Your task to perform on an android device: clear all cookies in the chrome app Image 0: 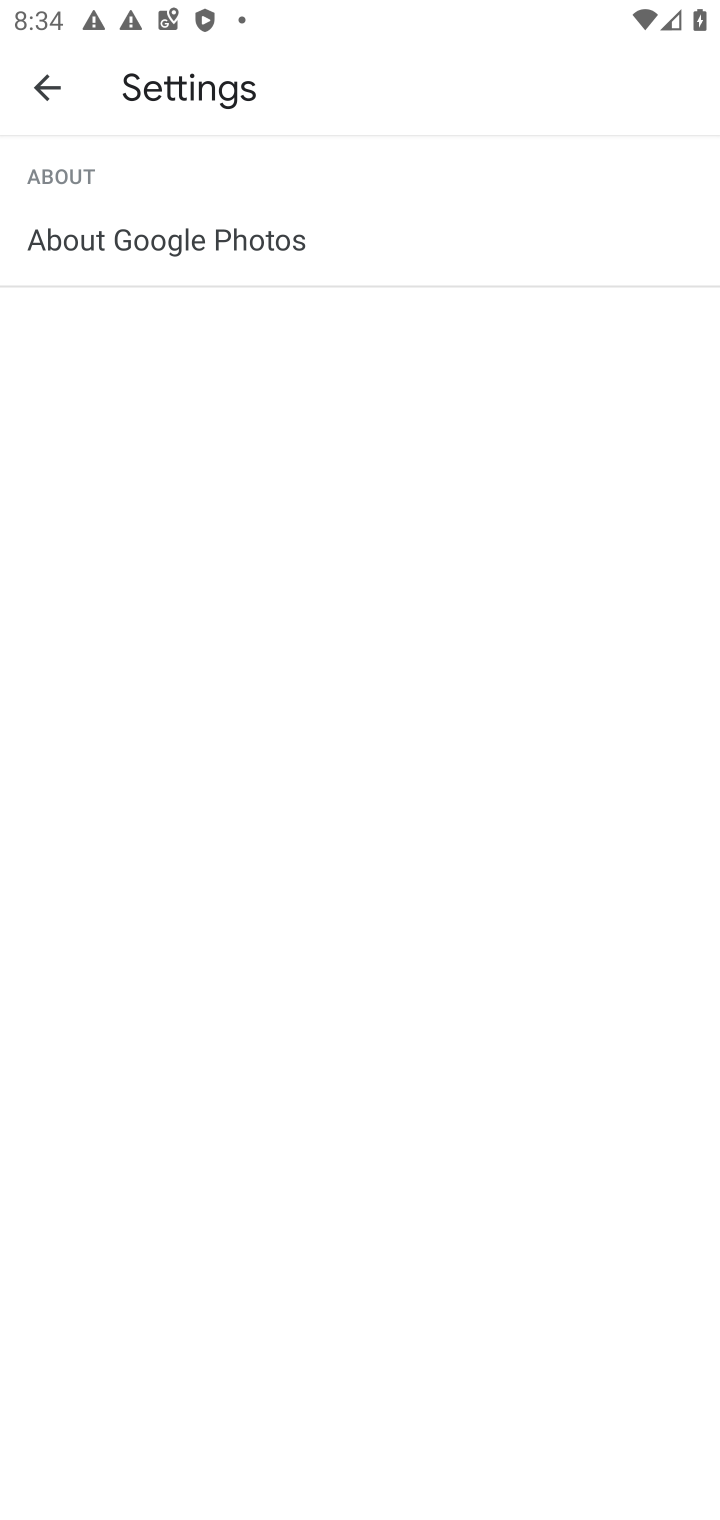
Step 0: press home button
Your task to perform on an android device: clear all cookies in the chrome app Image 1: 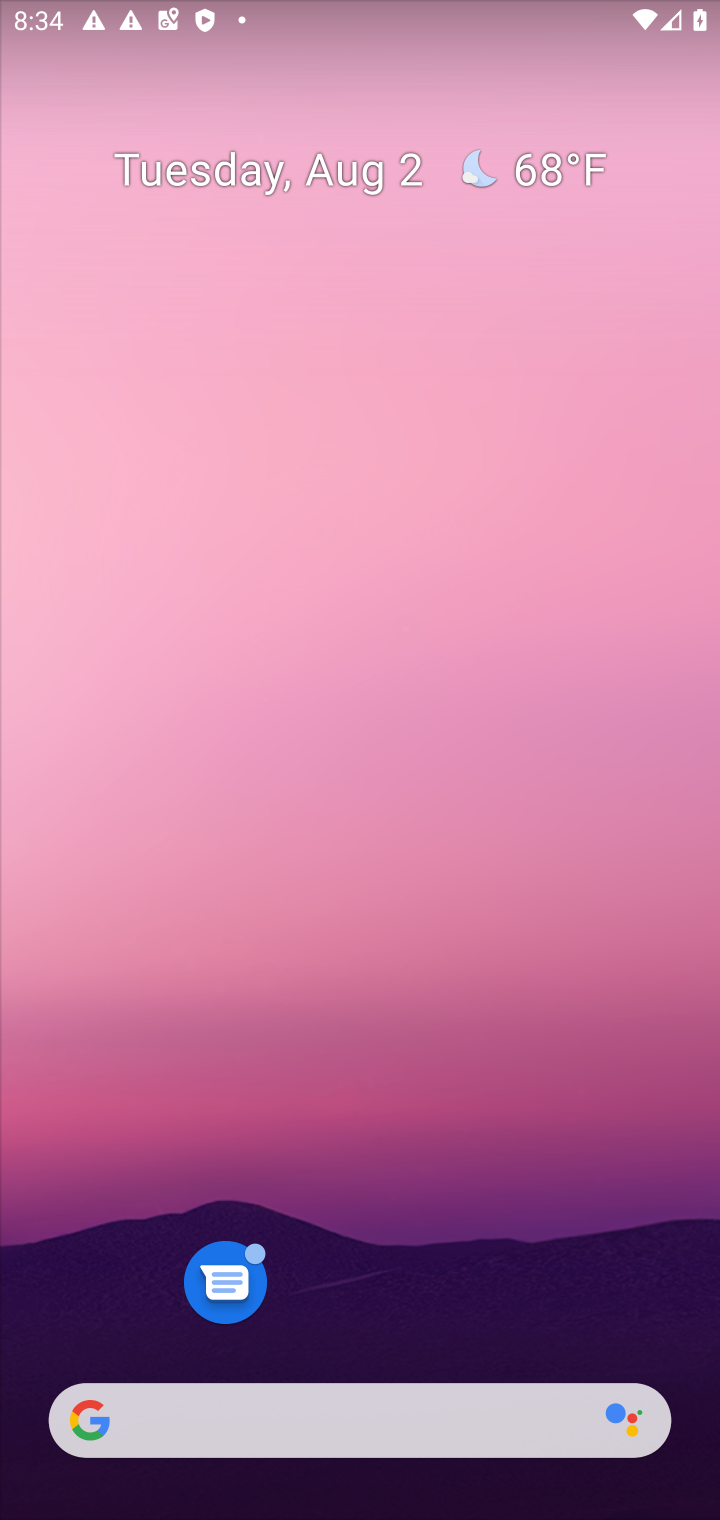
Step 1: drag from (414, 1309) to (537, 14)
Your task to perform on an android device: clear all cookies in the chrome app Image 2: 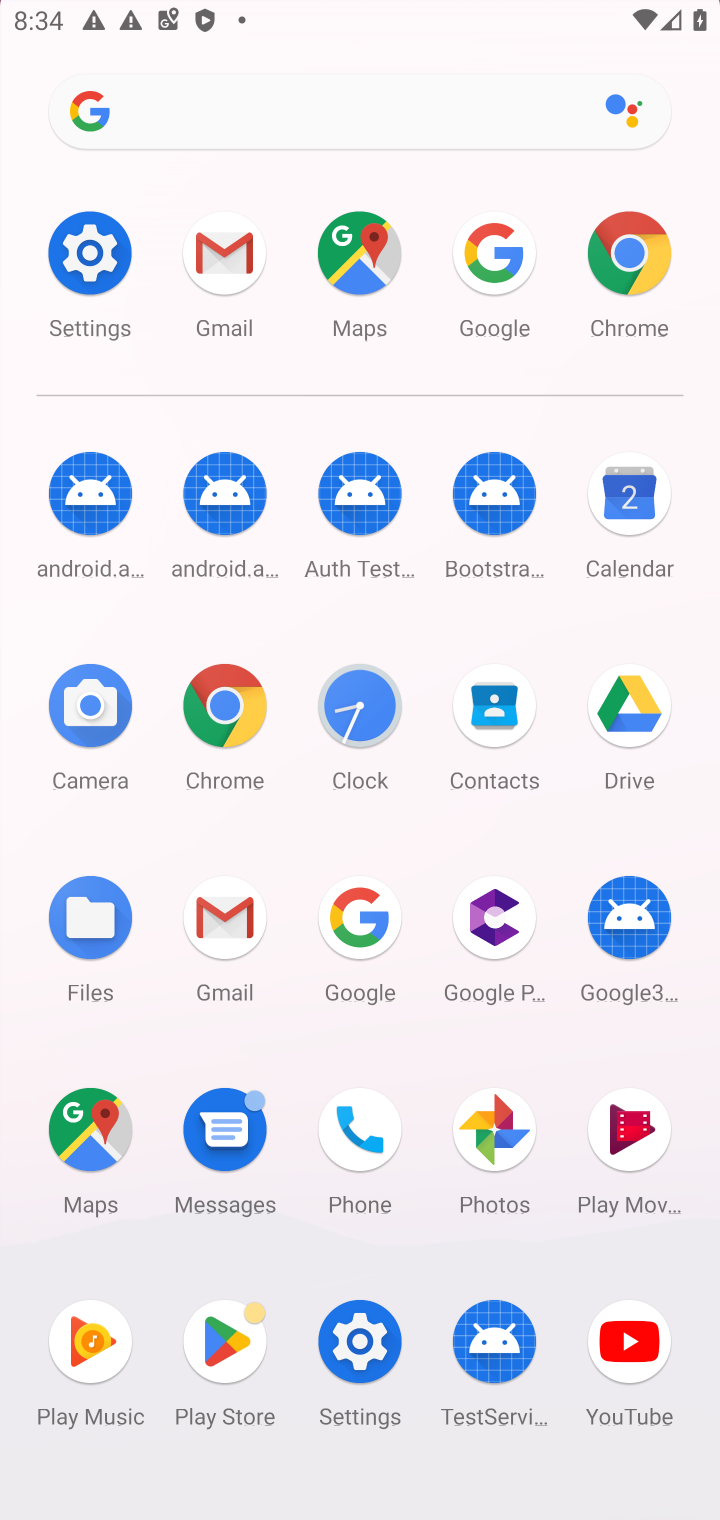
Step 2: click (645, 277)
Your task to perform on an android device: clear all cookies in the chrome app Image 3: 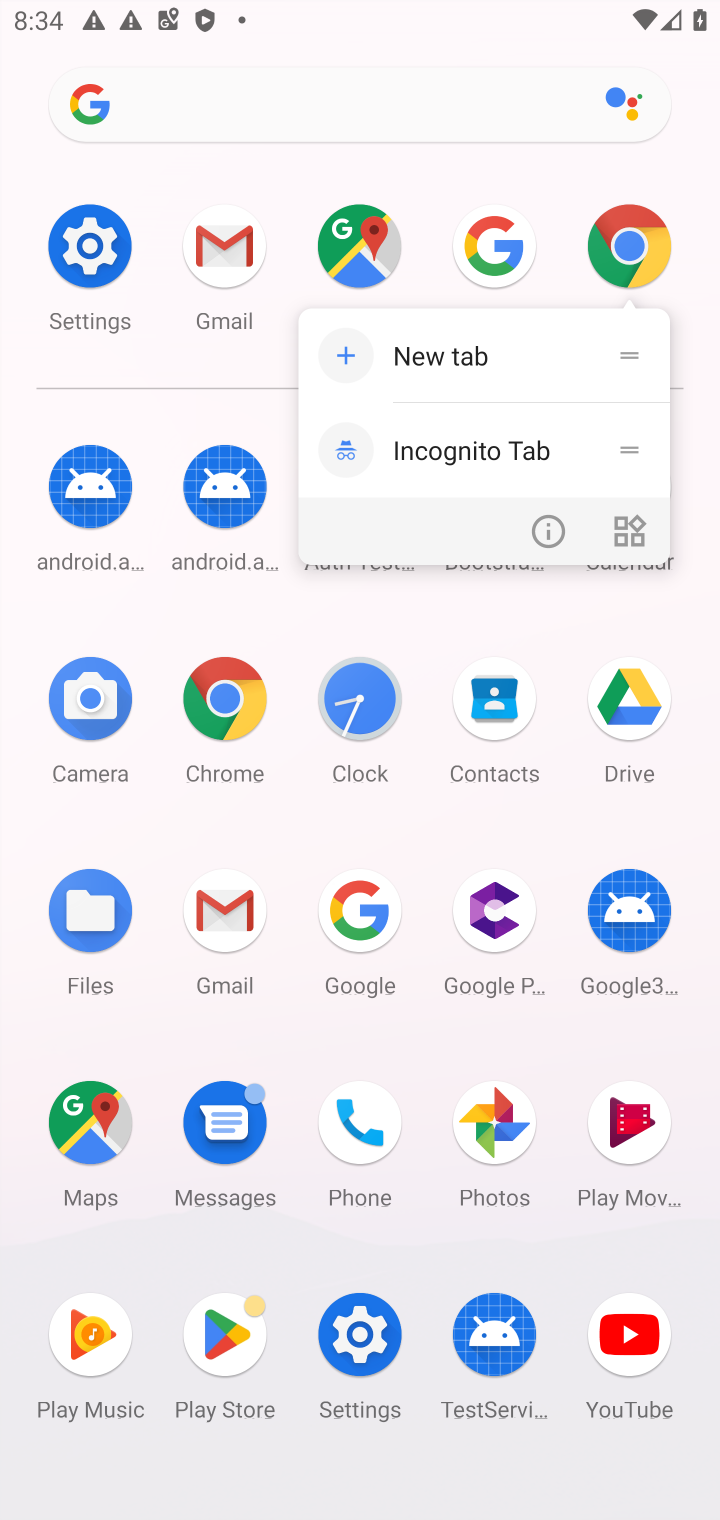
Step 3: click (645, 277)
Your task to perform on an android device: clear all cookies in the chrome app Image 4: 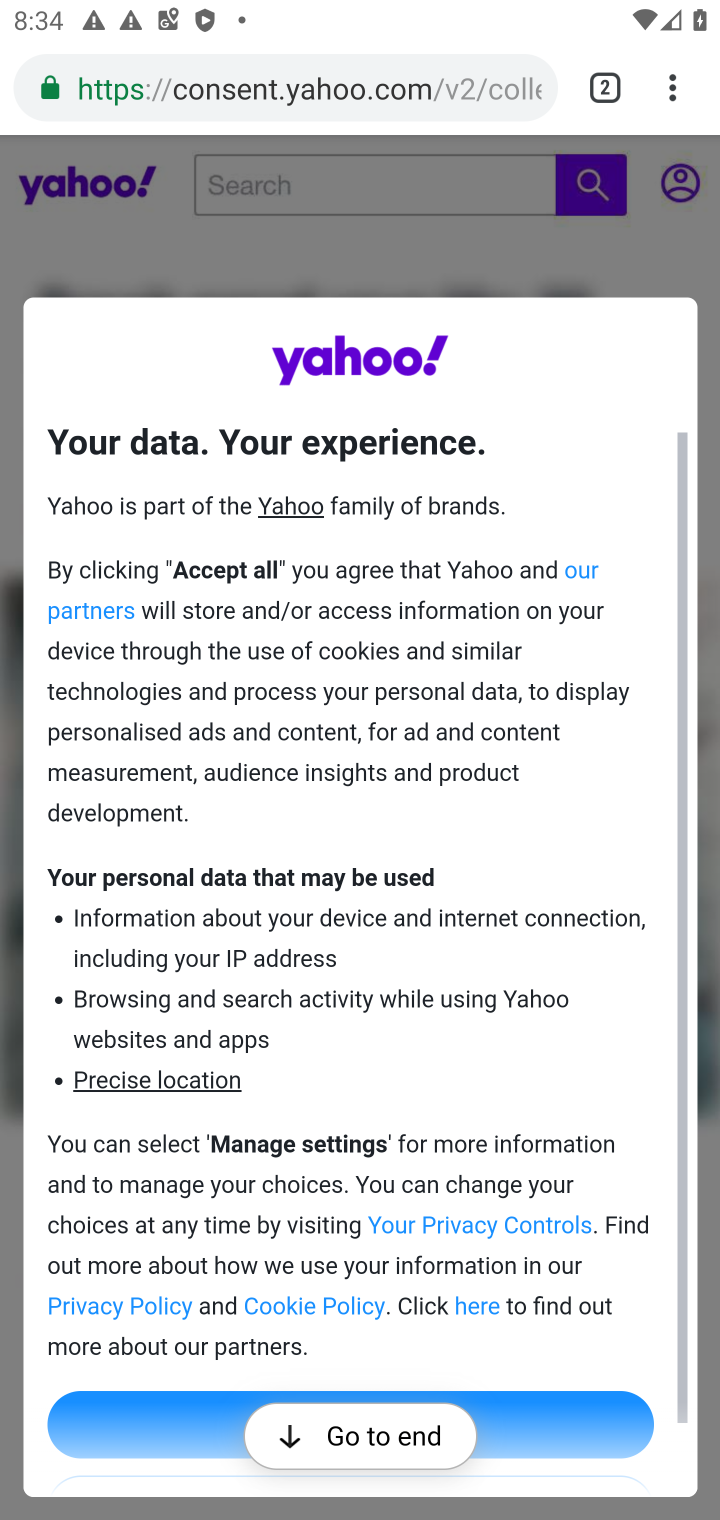
Step 4: click (390, 1440)
Your task to perform on an android device: clear all cookies in the chrome app Image 5: 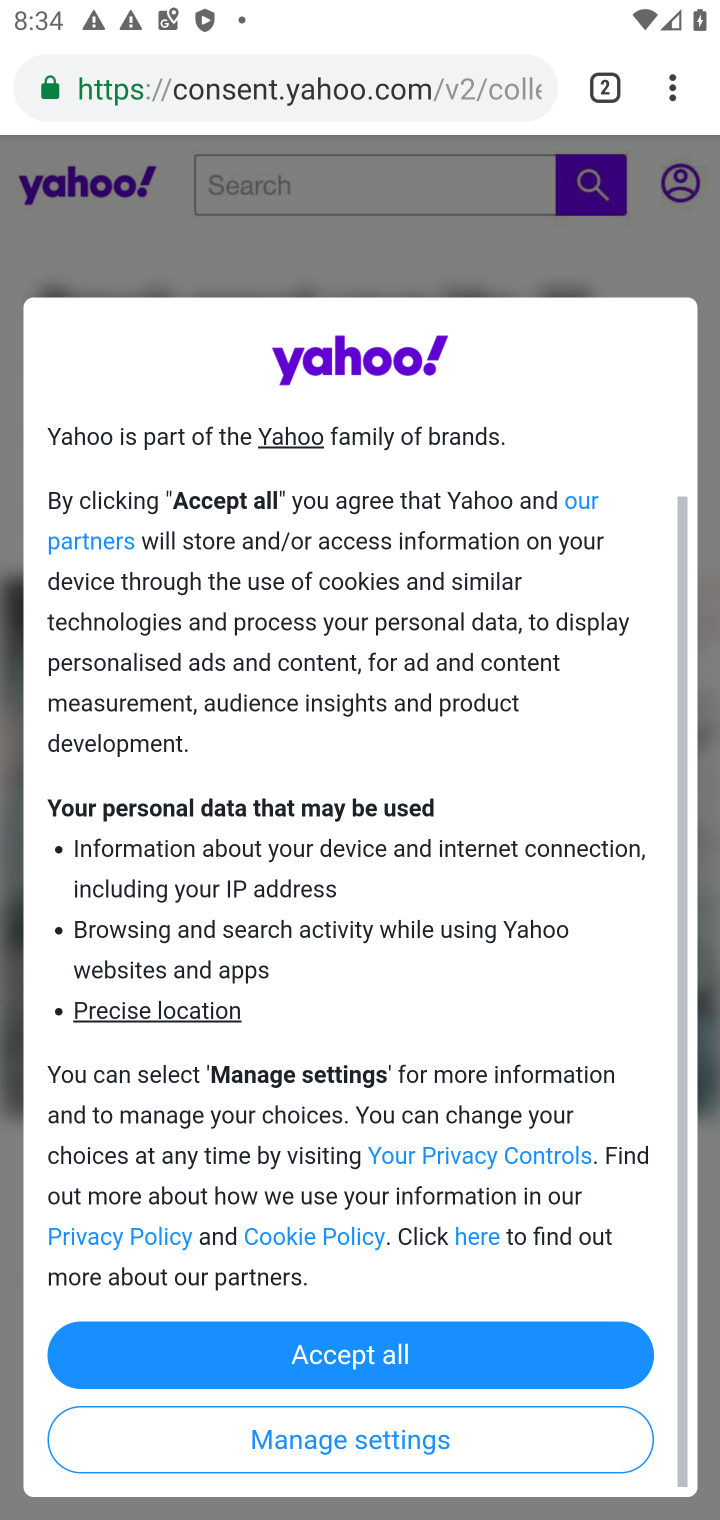
Step 5: click (364, 1363)
Your task to perform on an android device: clear all cookies in the chrome app Image 6: 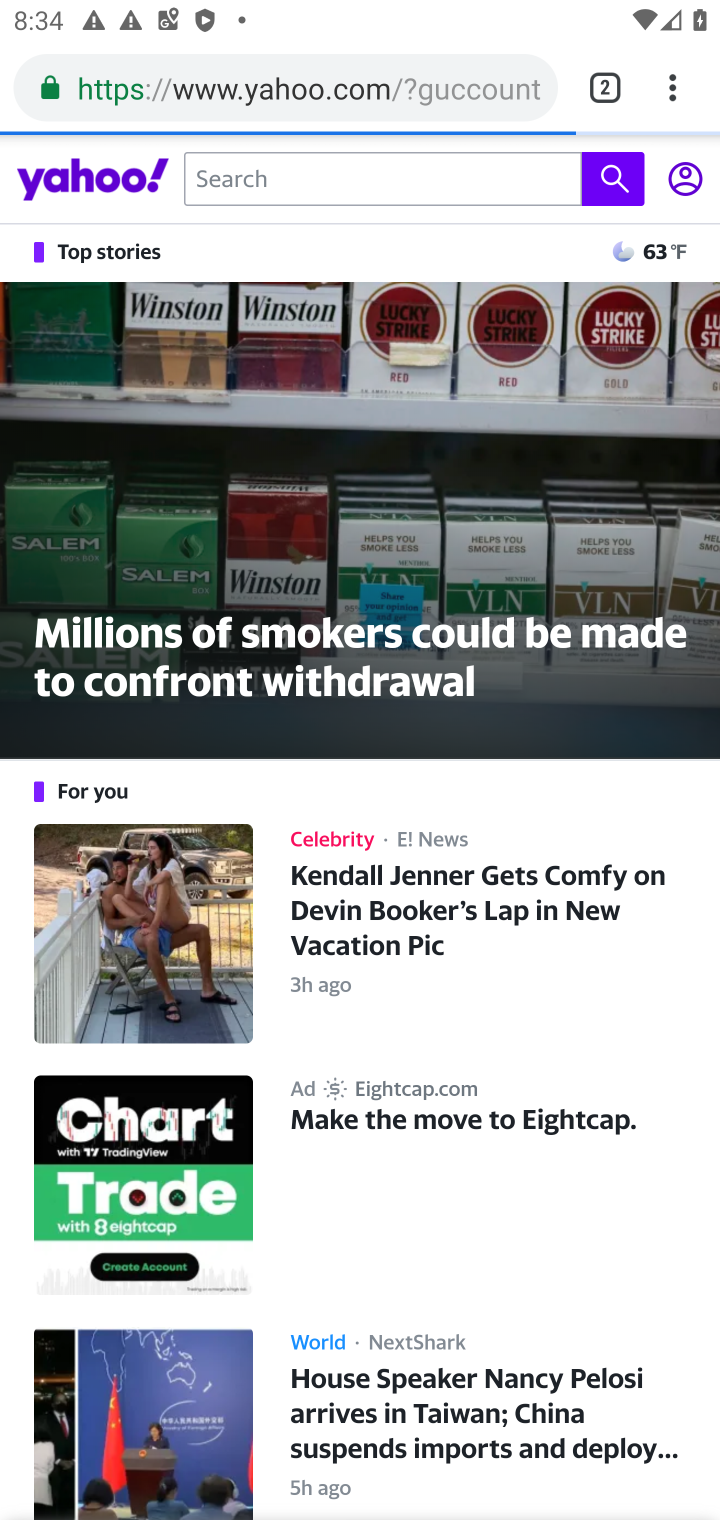
Step 6: drag from (674, 82) to (365, 1063)
Your task to perform on an android device: clear all cookies in the chrome app Image 7: 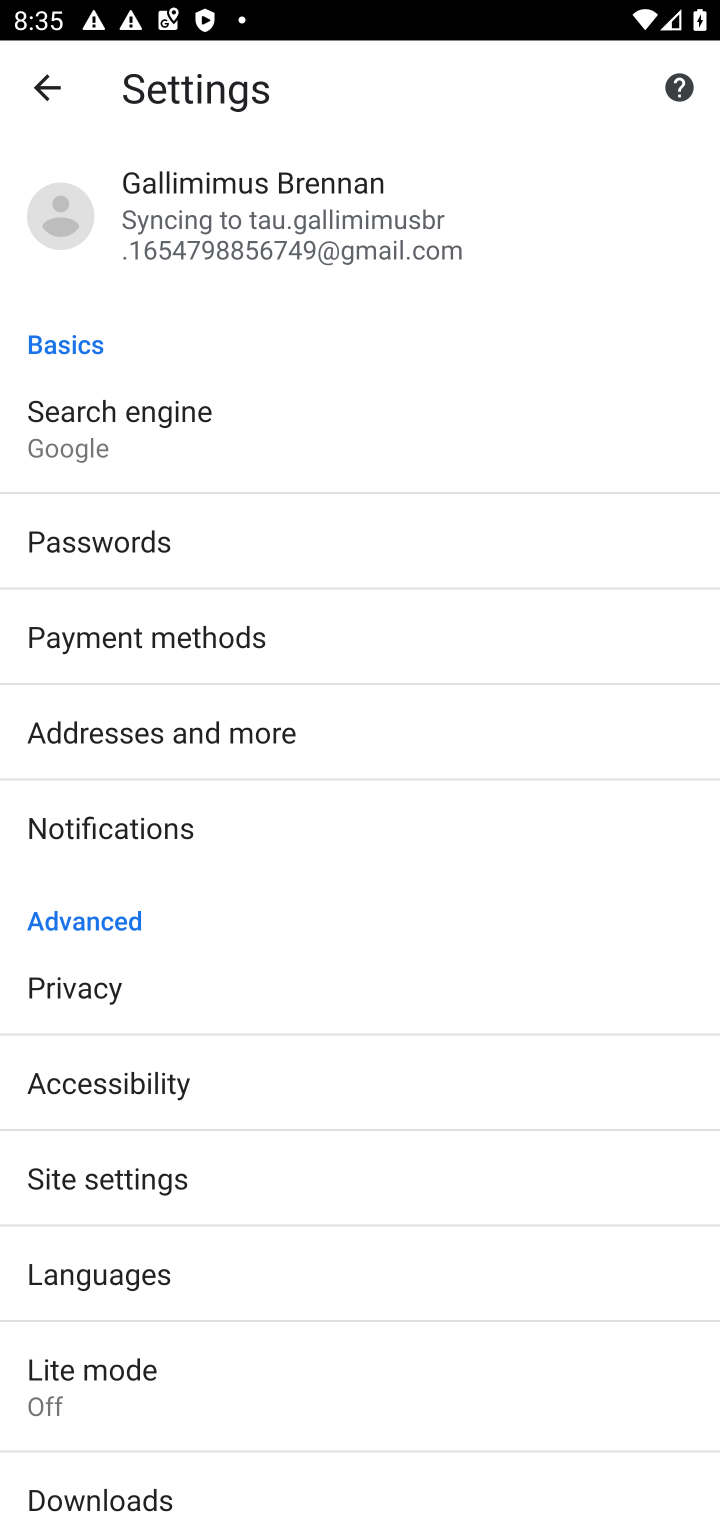
Step 7: drag from (482, 1165) to (354, 239)
Your task to perform on an android device: clear all cookies in the chrome app Image 8: 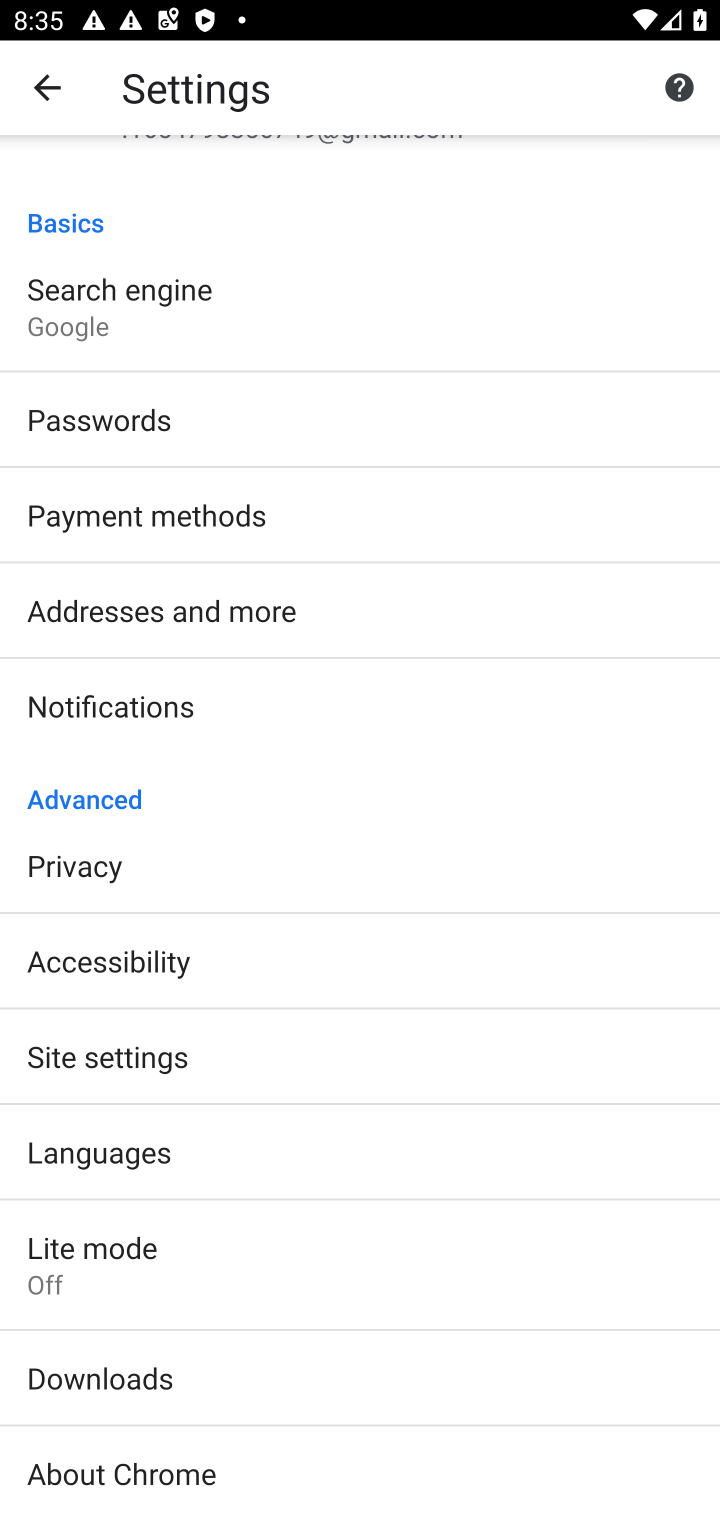
Step 8: click (46, 864)
Your task to perform on an android device: clear all cookies in the chrome app Image 9: 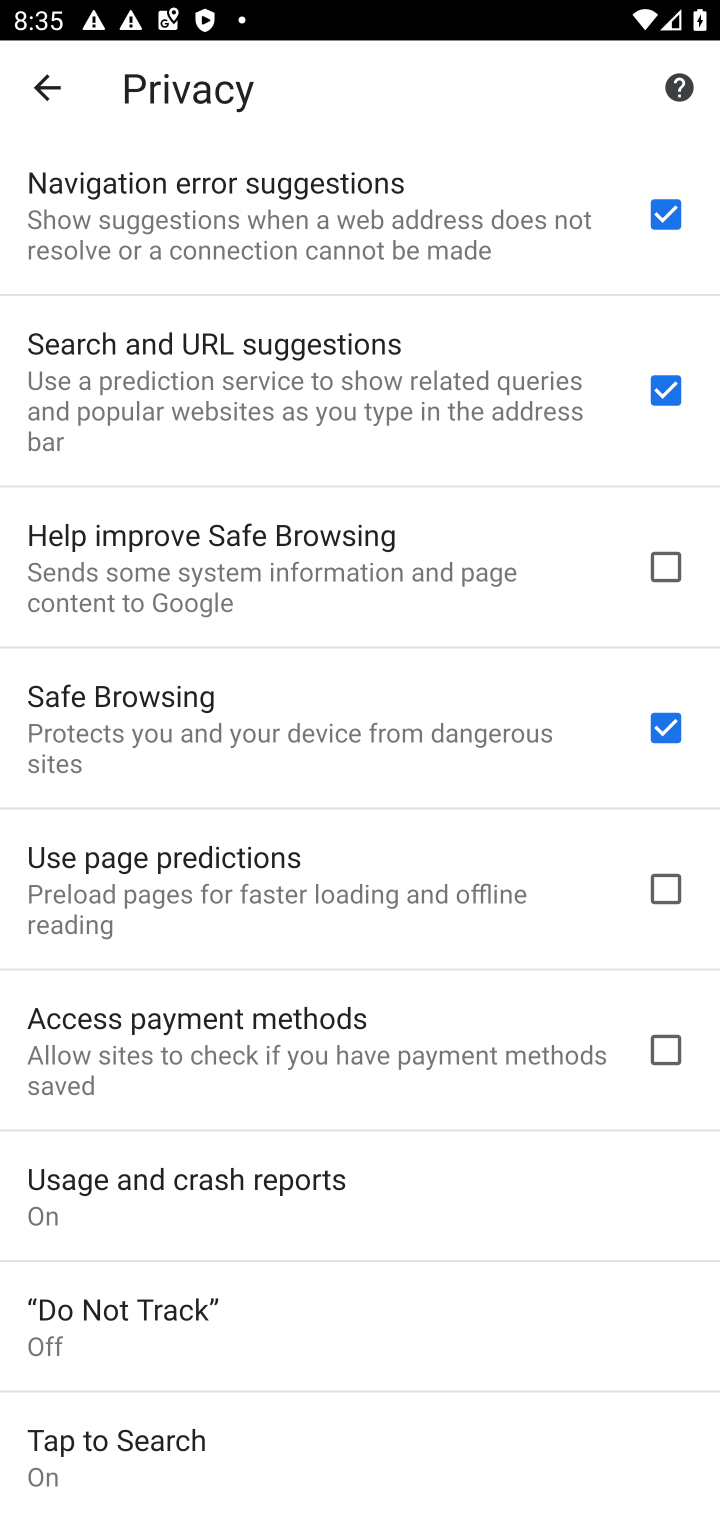
Step 9: drag from (238, 1438) to (87, 284)
Your task to perform on an android device: clear all cookies in the chrome app Image 10: 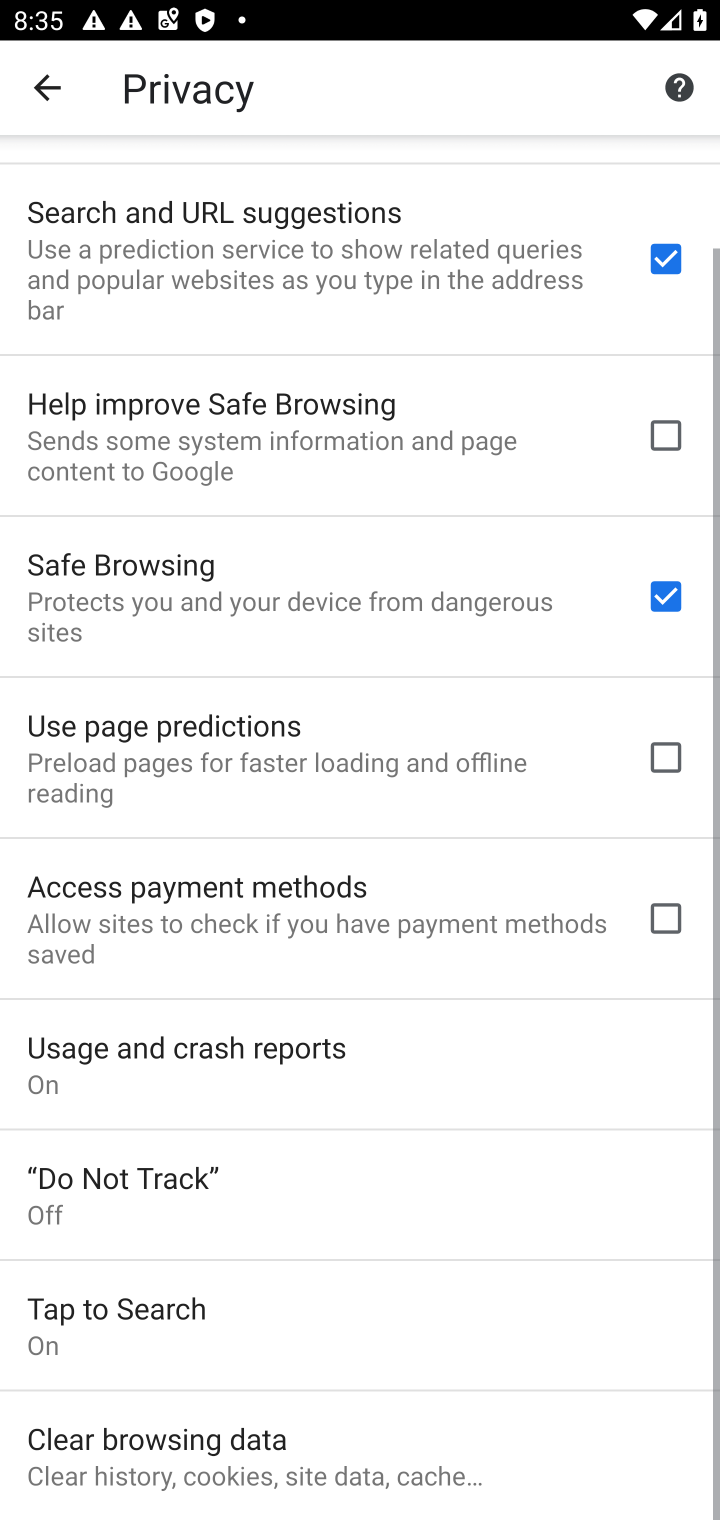
Step 10: click (210, 1453)
Your task to perform on an android device: clear all cookies in the chrome app Image 11: 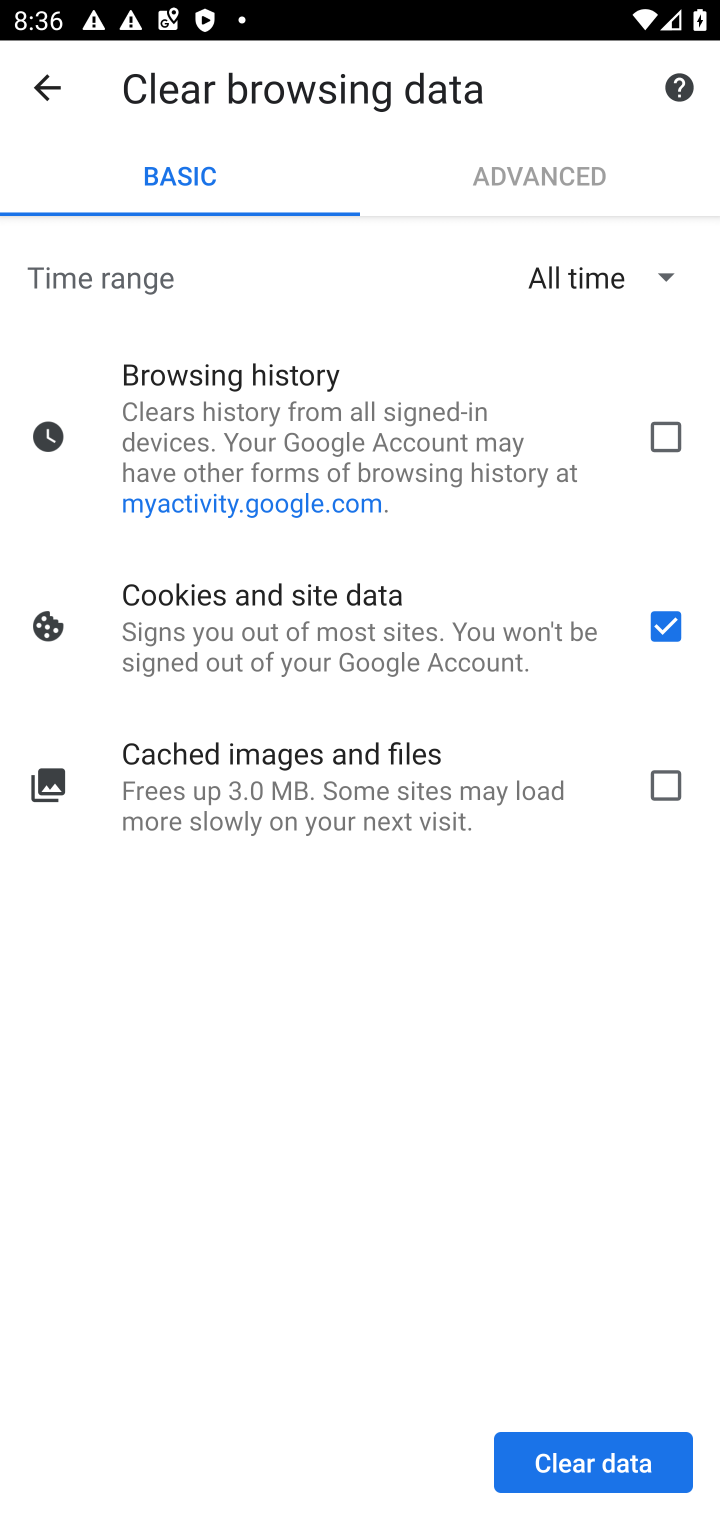
Step 11: click (566, 1466)
Your task to perform on an android device: clear all cookies in the chrome app Image 12: 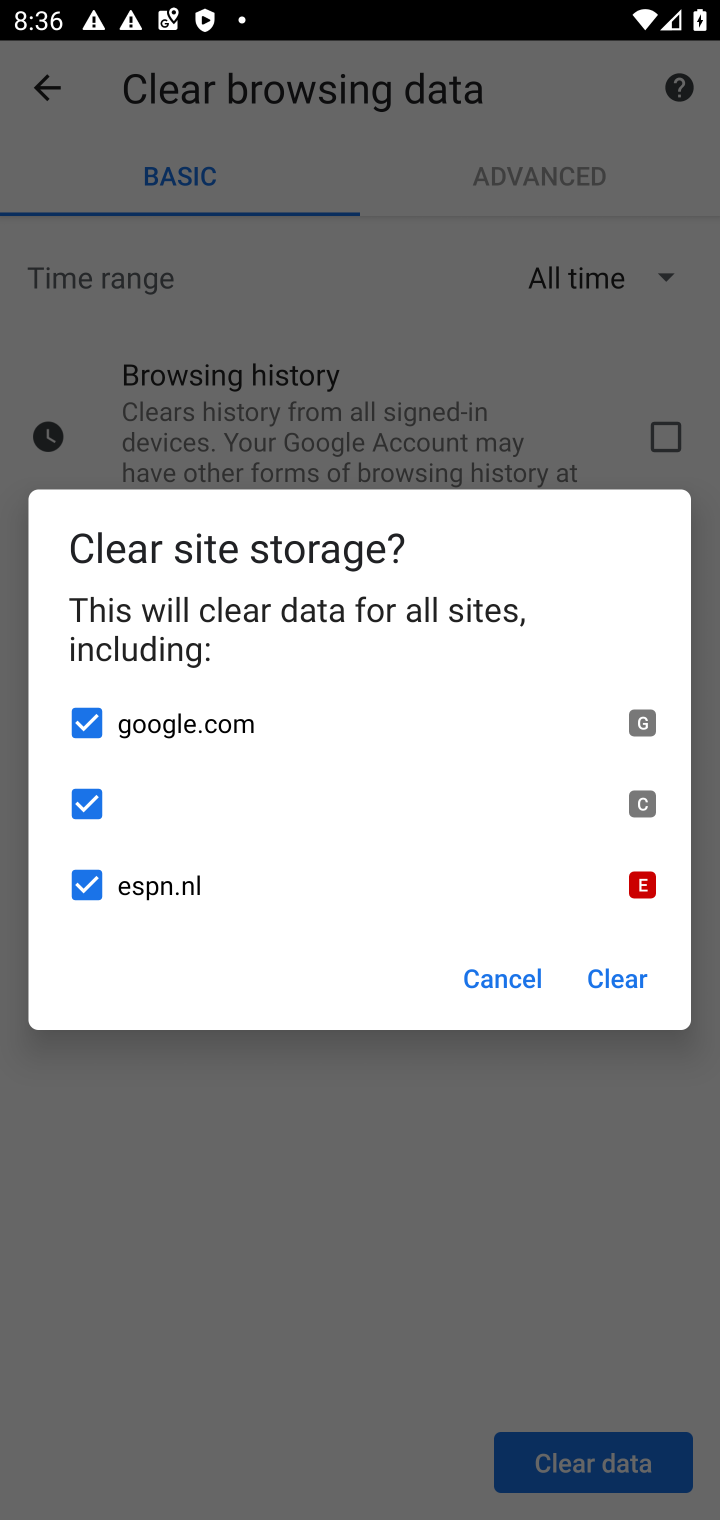
Step 12: click (631, 981)
Your task to perform on an android device: clear all cookies in the chrome app Image 13: 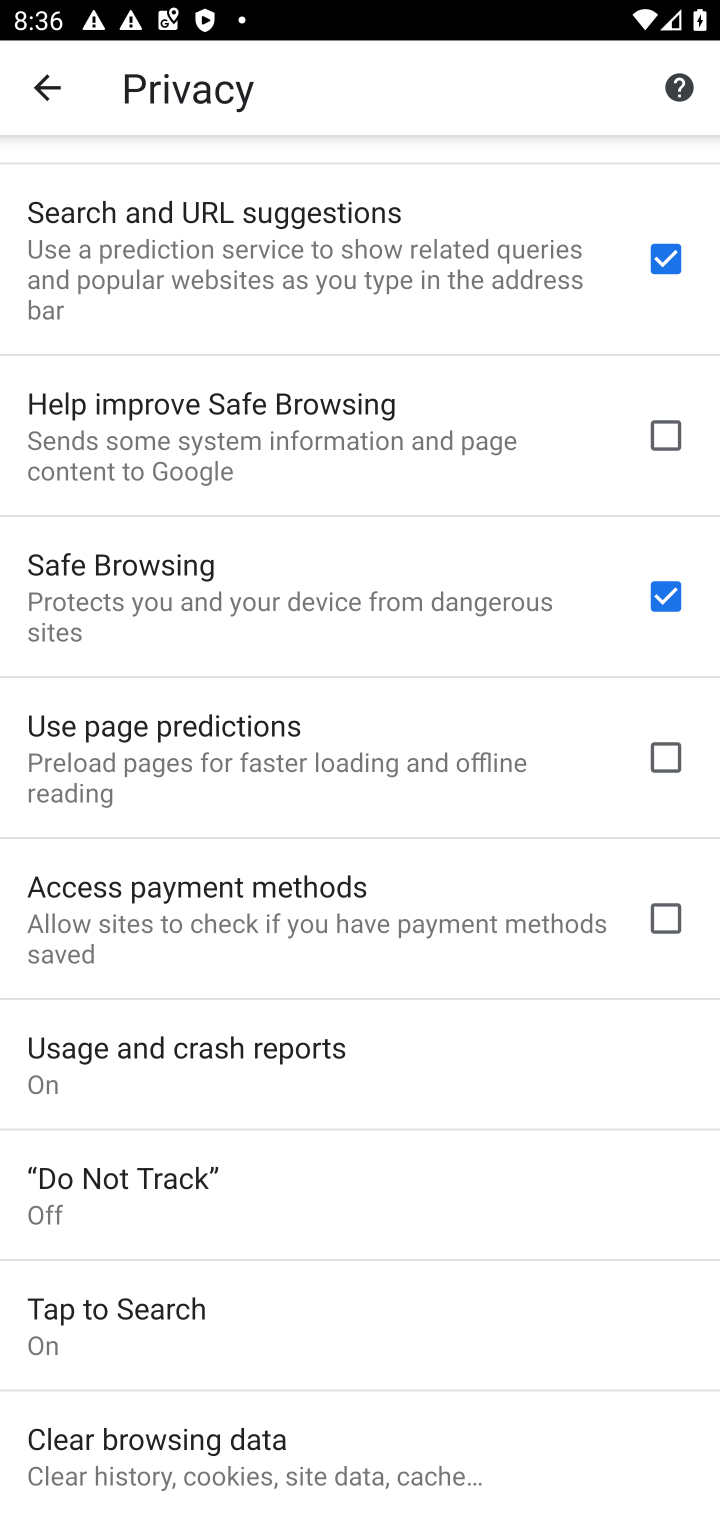
Step 13: task complete